Your task to perform on an android device: Open calendar and show me the first week of next month Image 0: 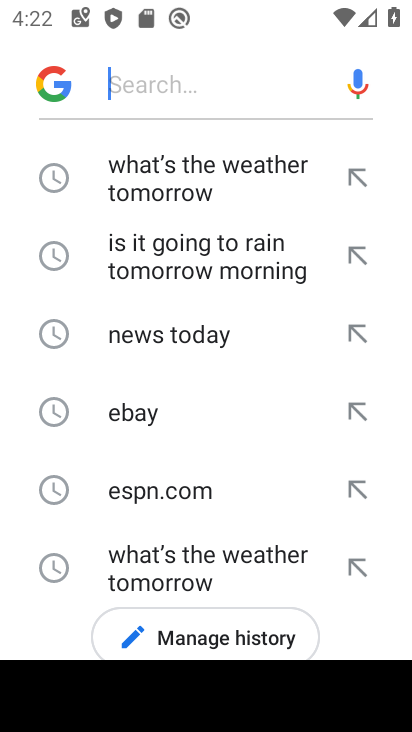
Step 0: press back button
Your task to perform on an android device: Open calendar and show me the first week of next month Image 1: 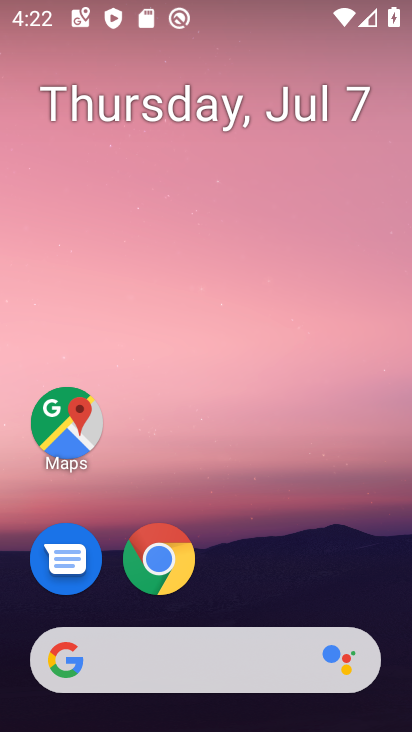
Step 1: drag from (269, 578) to (312, 2)
Your task to perform on an android device: Open calendar and show me the first week of next month Image 2: 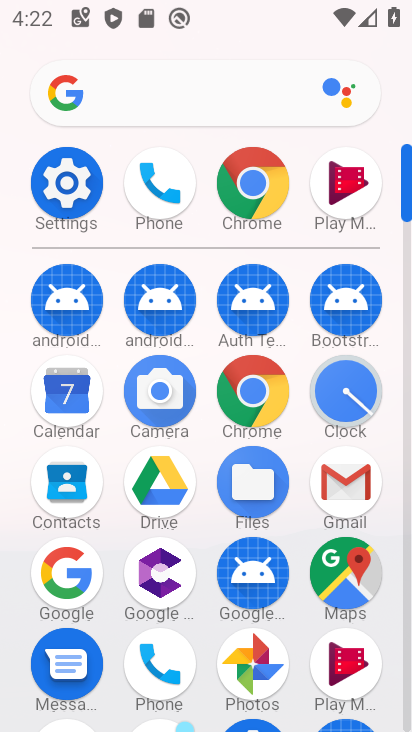
Step 2: click (75, 407)
Your task to perform on an android device: Open calendar and show me the first week of next month Image 3: 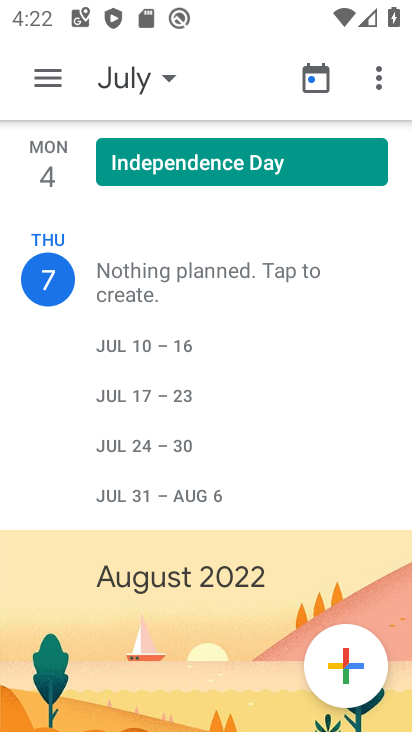
Step 3: click (166, 76)
Your task to perform on an android device: Open calendar and show me the first week of next month Image 4: 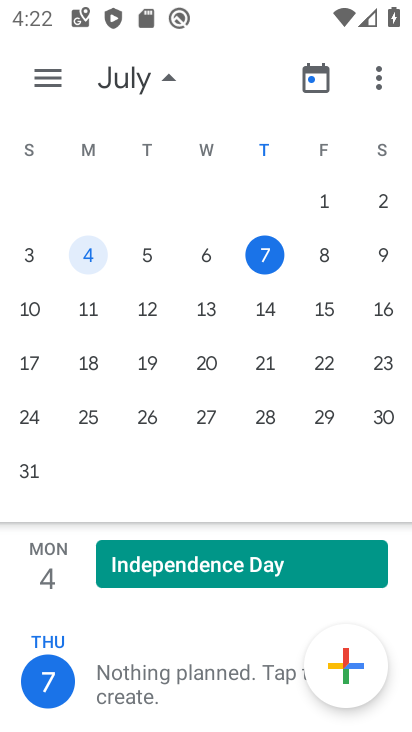
Step 4: drag from (363, 333) to (36, 305)
Your task to perform on an android device: Open calendar and show me the first week of next month Image 5: 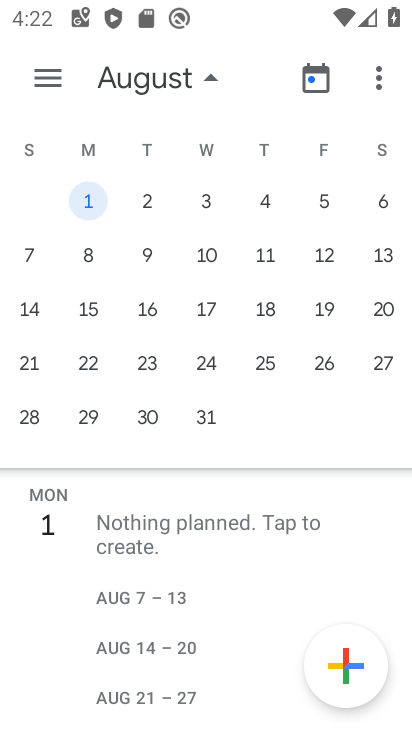
Step 5: click (96, 199)
Your task to perform on an android device: Open calendar and show me the first week of next month Image 6: 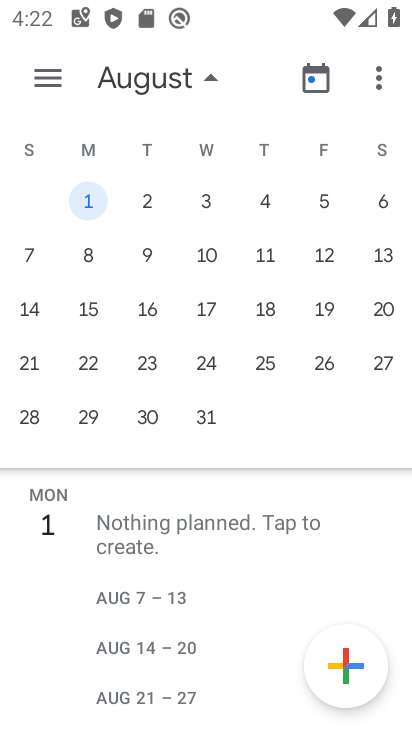
Step 6: task complete